Your task to perform on an android device: turn on wifi Image 0: 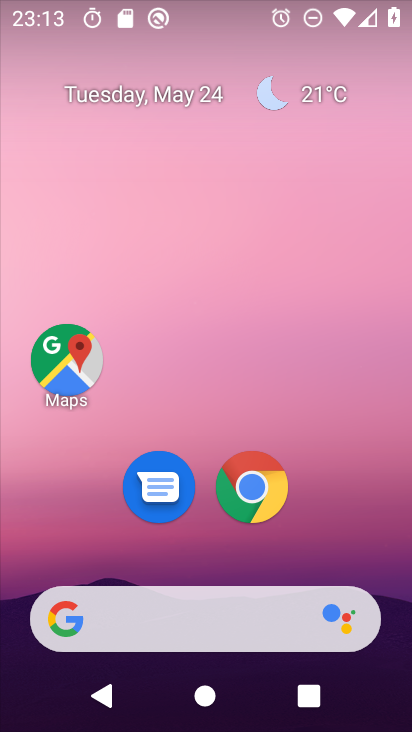
Step 0: drag from (383, 501) to (349, 12)
Your task to perform on an android device: turn on wifi Image 1: 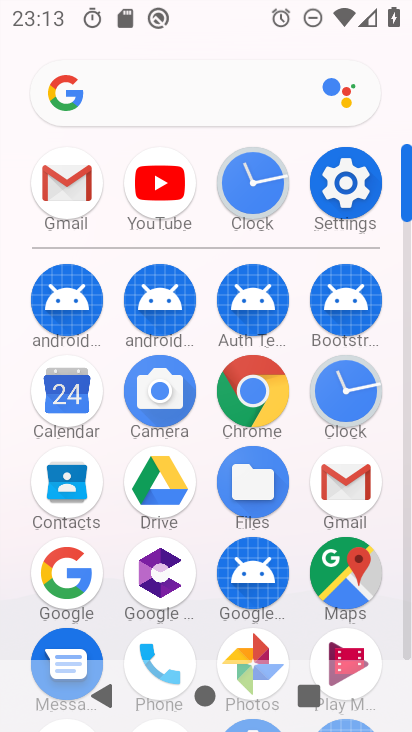
Step 1: click (344, 224)
Your task to perform on an android device: turn on wifi Image 2: 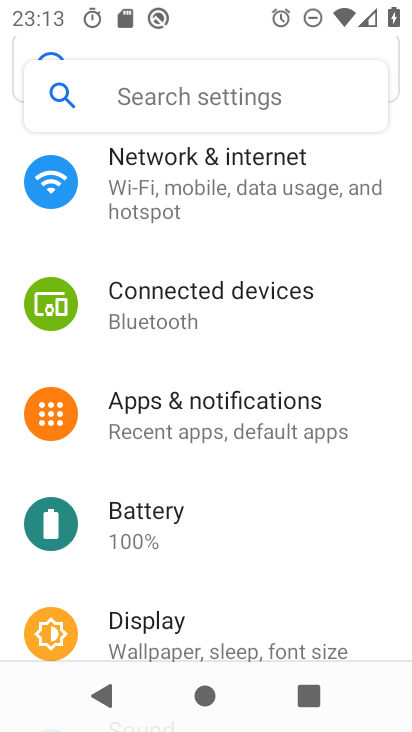
Step 2: click (136, 193)
Your task to perform on an android device: turn on wifi Image 3: 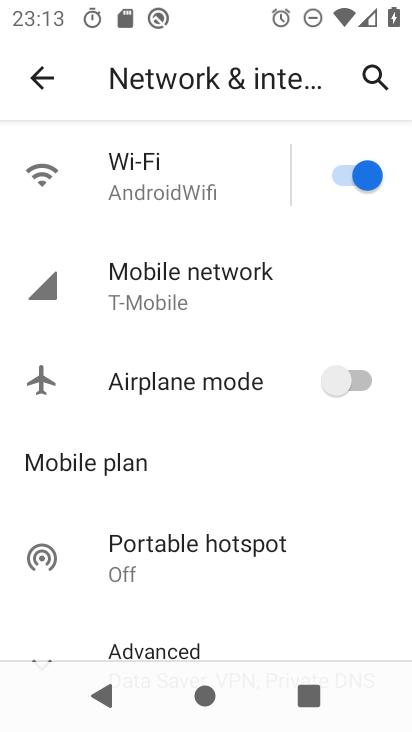
Step 3: task complete